Your task to perform on an android device: change the clock display to digital Image 0: 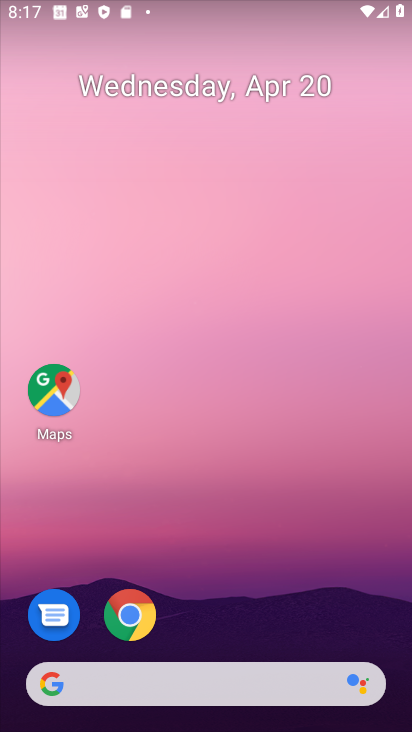
Step 0: drag from (238, 629) to (285, 23)
Your task to perform on an android device: change the clock display to digital Image 1: 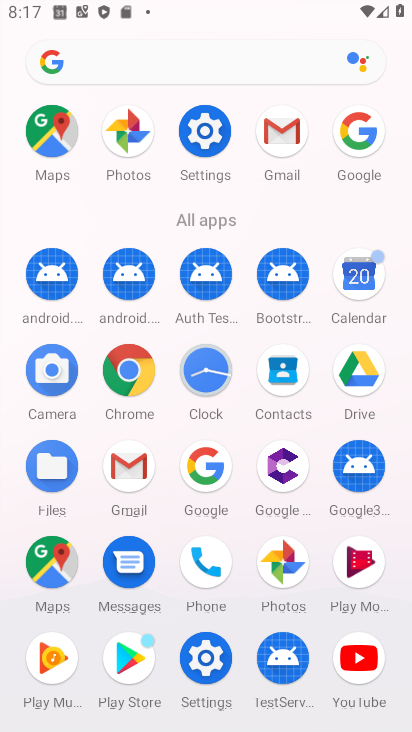
Step 1: click (204, 372)
Your task to perform on an android device: change the clock display to digital Image 2: 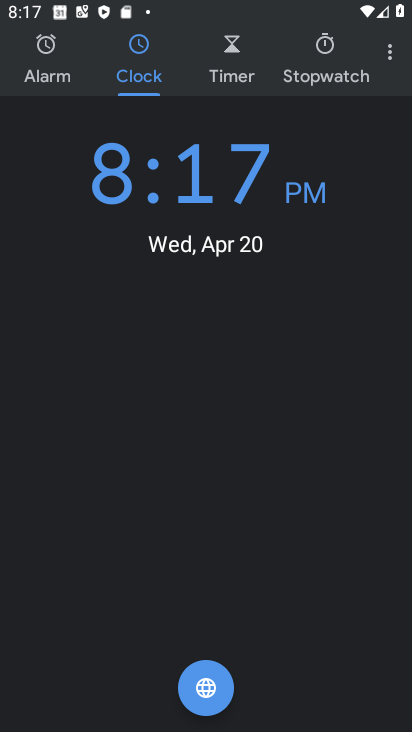
Step 2: click (393, 53)
Your task to perform on an android device: change the clock display to digital Image 3: 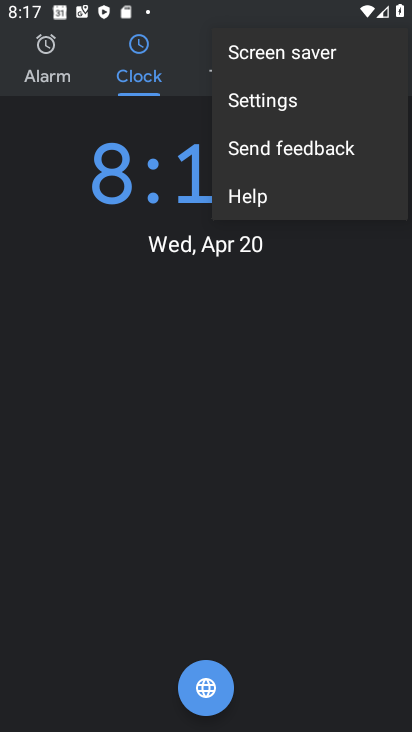
Step 3: click (296, 100)
Your task to perform on an android device: change the clock display to digital Image 4: 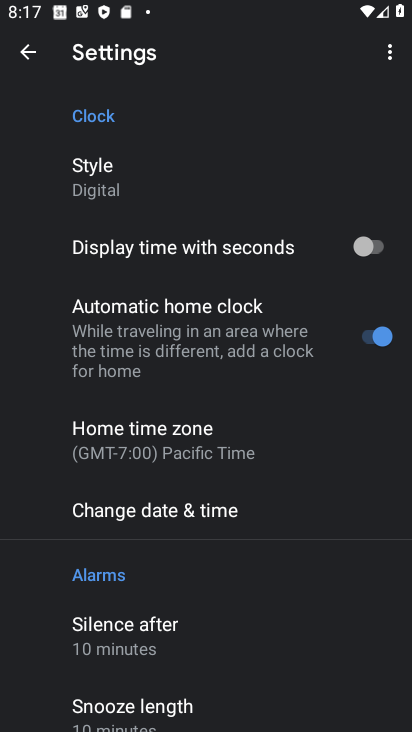
Step 4: click (137, 177)
Your task to perform on an android device: change the clock display to digital Image 5: 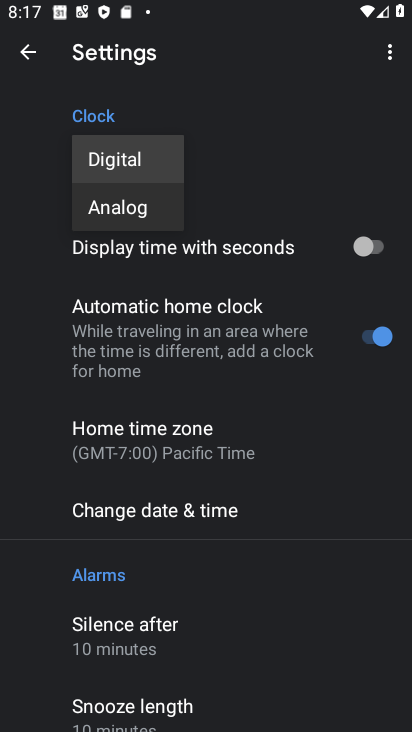
Step 5: click (137, 177)
Your task to perform on an android device: change the clock display to digital Image 6: 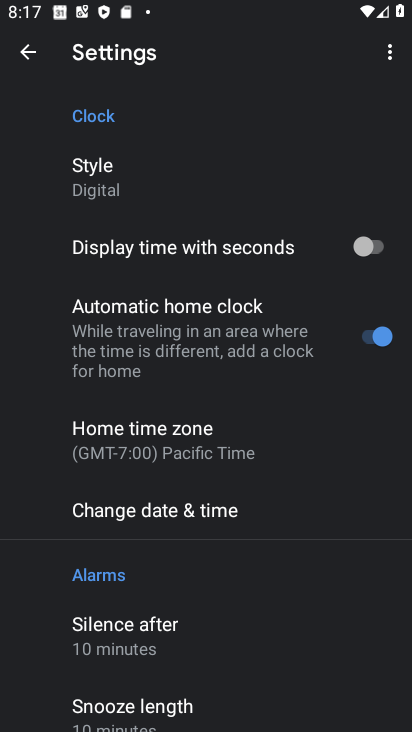
Step 6: task complete